Your task to perform on an android device: change timer sound Image 0: 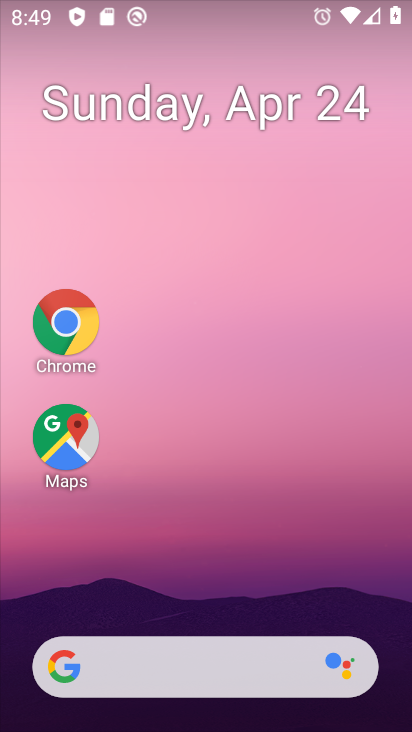
Step 0: drag from (177, 566) to (105, 72)
Your task to perform on an android device: change timer sound Image 1: 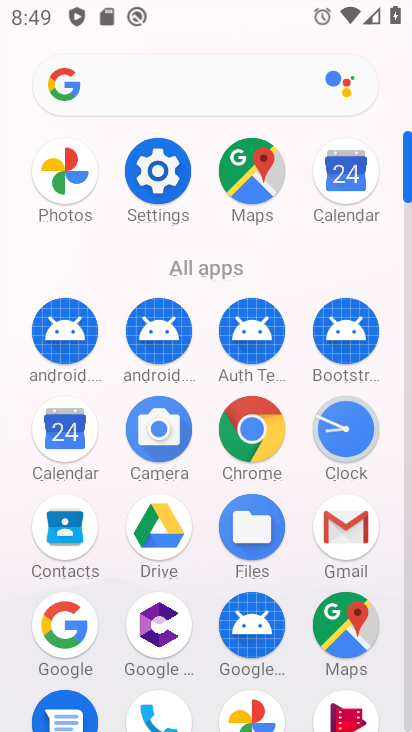
Step 1: click (337, 438)
Your task to perform on an android device: change timer sound Image 2: 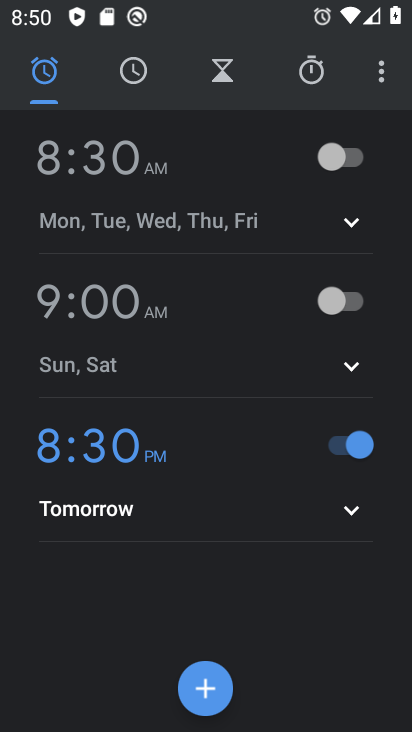
Step 2: click (380, 72)
Your task to perform on an android device: change timer sound Image 3: 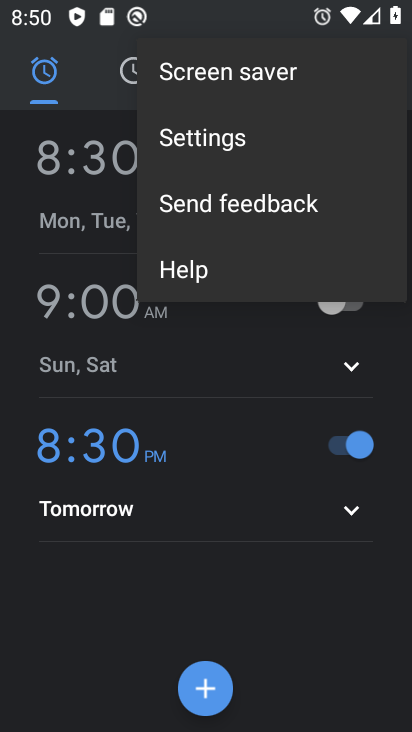
Step 3: click (223, 138)
Your task to perform on an android device: change timer sound Image 4: 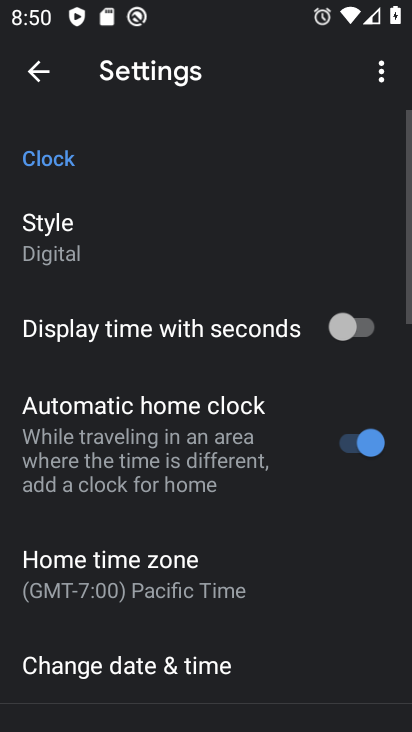
Step 4: drag from (230, 543) to (162, 191)
Your task to perform on an android device: change timer sound Image 5: 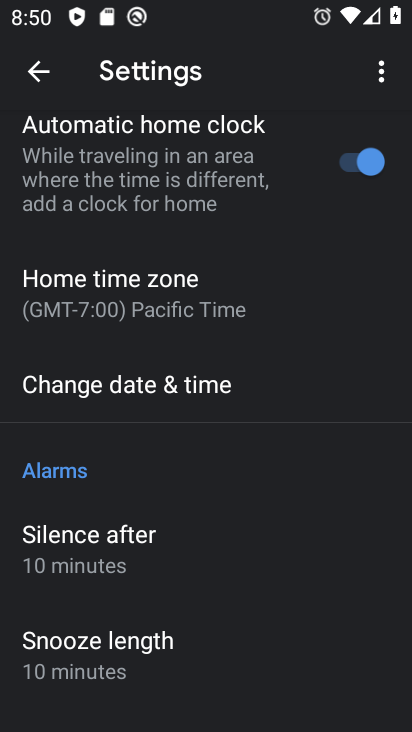
Step 5: drag from (178, 554) to (167, 257)
Your task to perform on an android device: change timer sound Image 6: 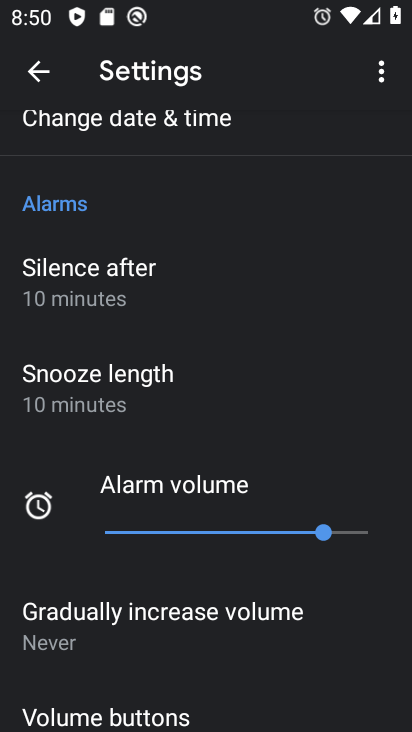
Step 6: drag from (165, 555) to (141, 244)
Your task to perform on an android device: change timer sound Image 7: 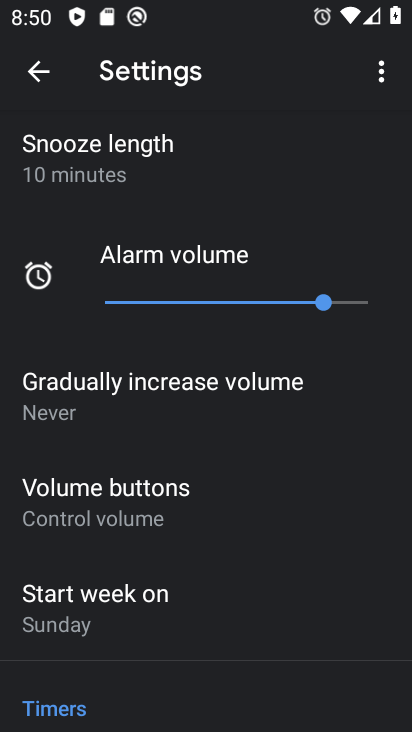
Step 7: drag from (150, 544) to (137, 187)
Your task to perform on an android device: change timer sound Image 8: 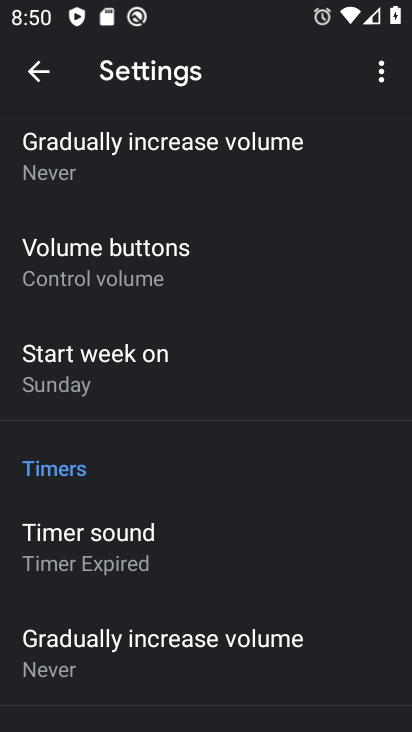
Step 8: click (106, 528)
Your task to perform on an android device: change timer sound Image 9: 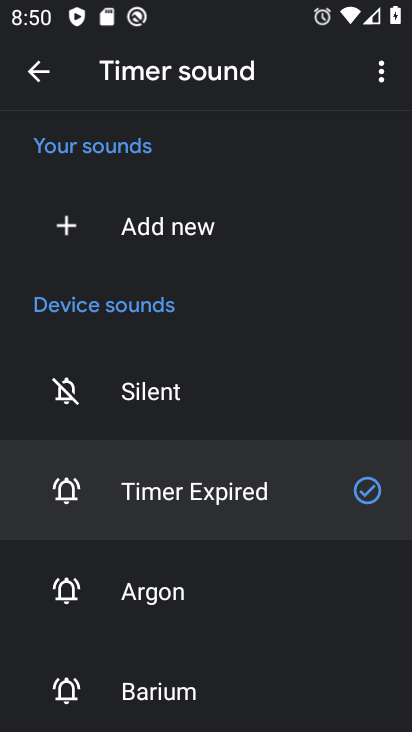
Step 9: click (148, 585)
Your task to perform on an android device: change timer sound Image 10: 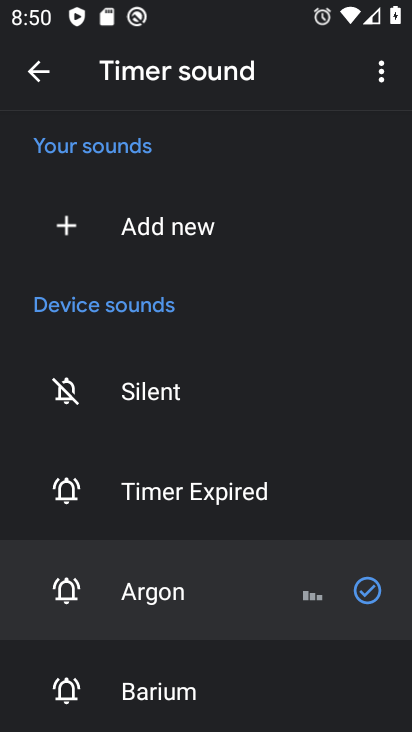
Step 10: task complete